Your task to perform on an android device: toggle notifications settings in the gmail app Image 0: 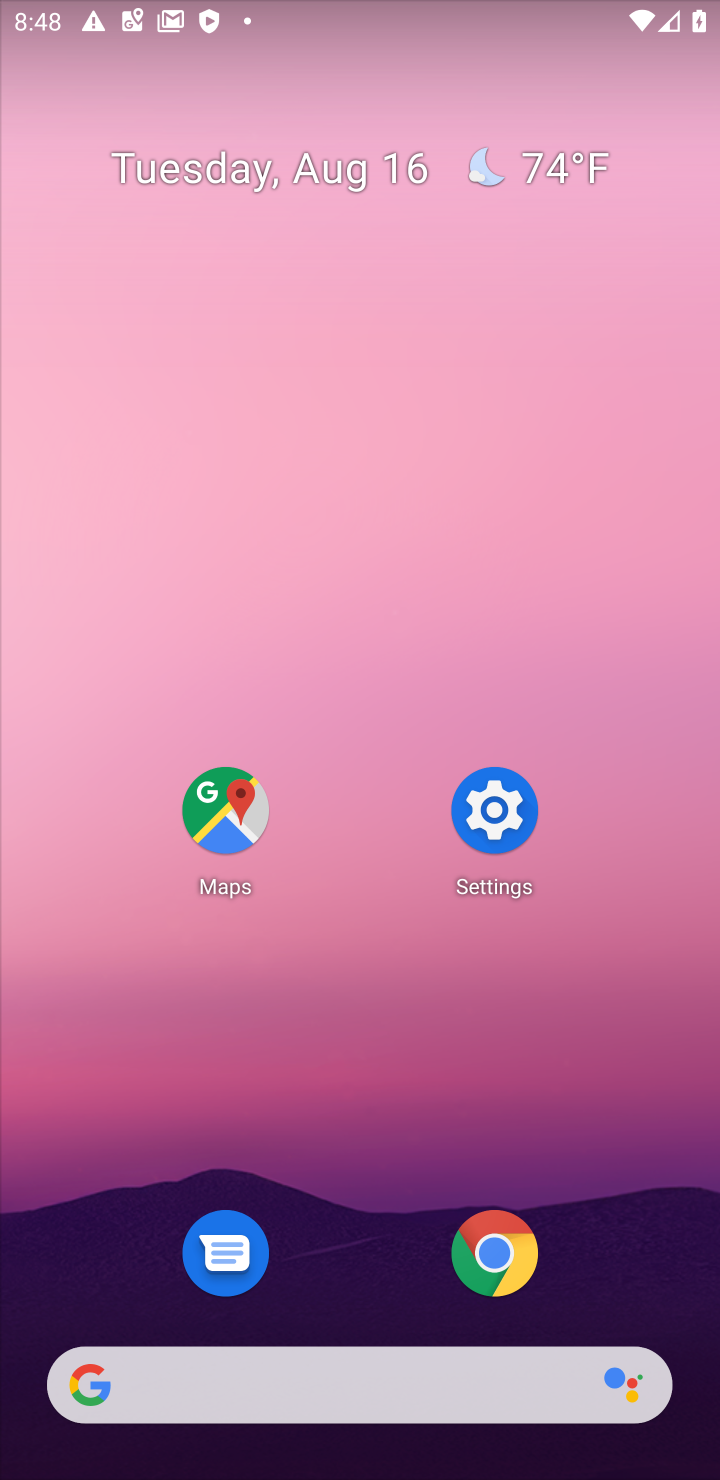
Step 0: press home button
Your task to perform on an android device: toggle notifications settings in the gmail app Image 1: 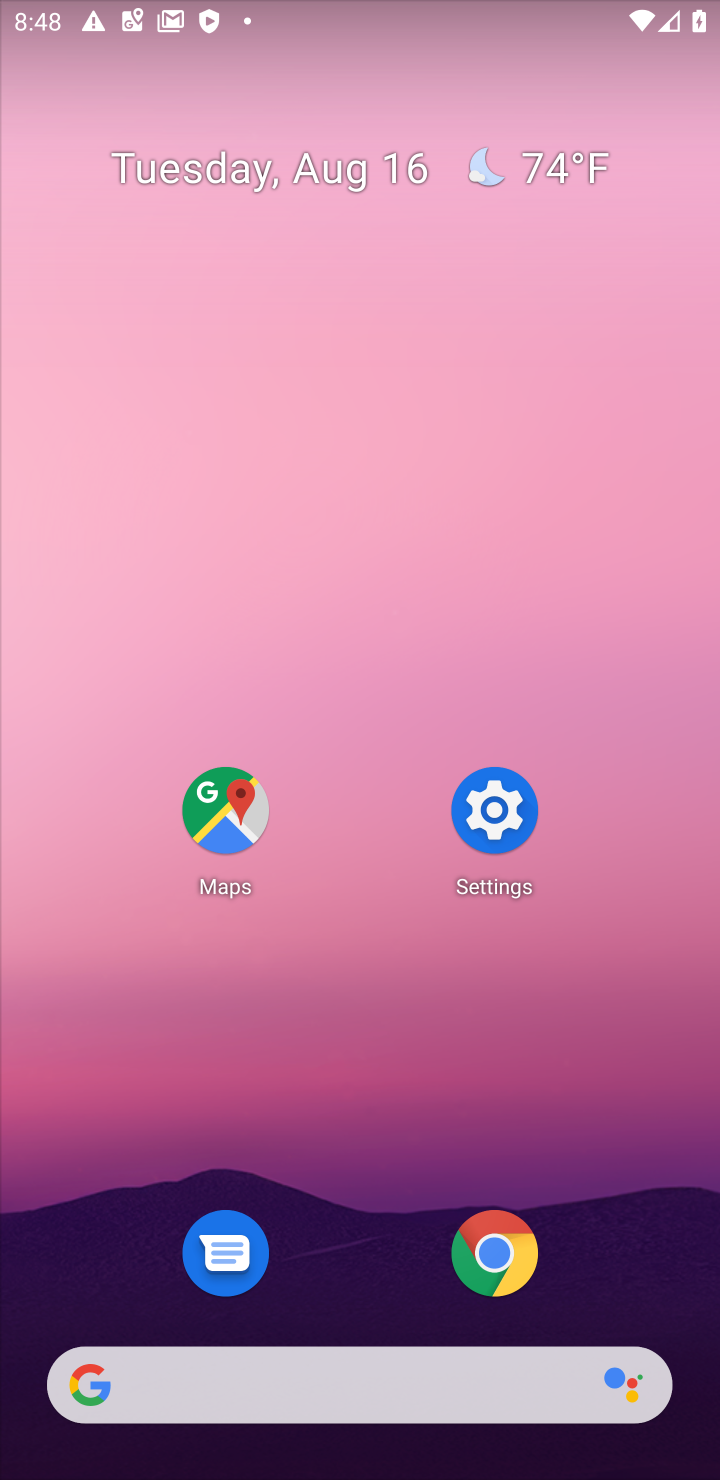
Step 1: drag from (340, 1378) to (464, 451)
Your task to perform on an android device: toggle notifications settings in the gmail app Image 2: 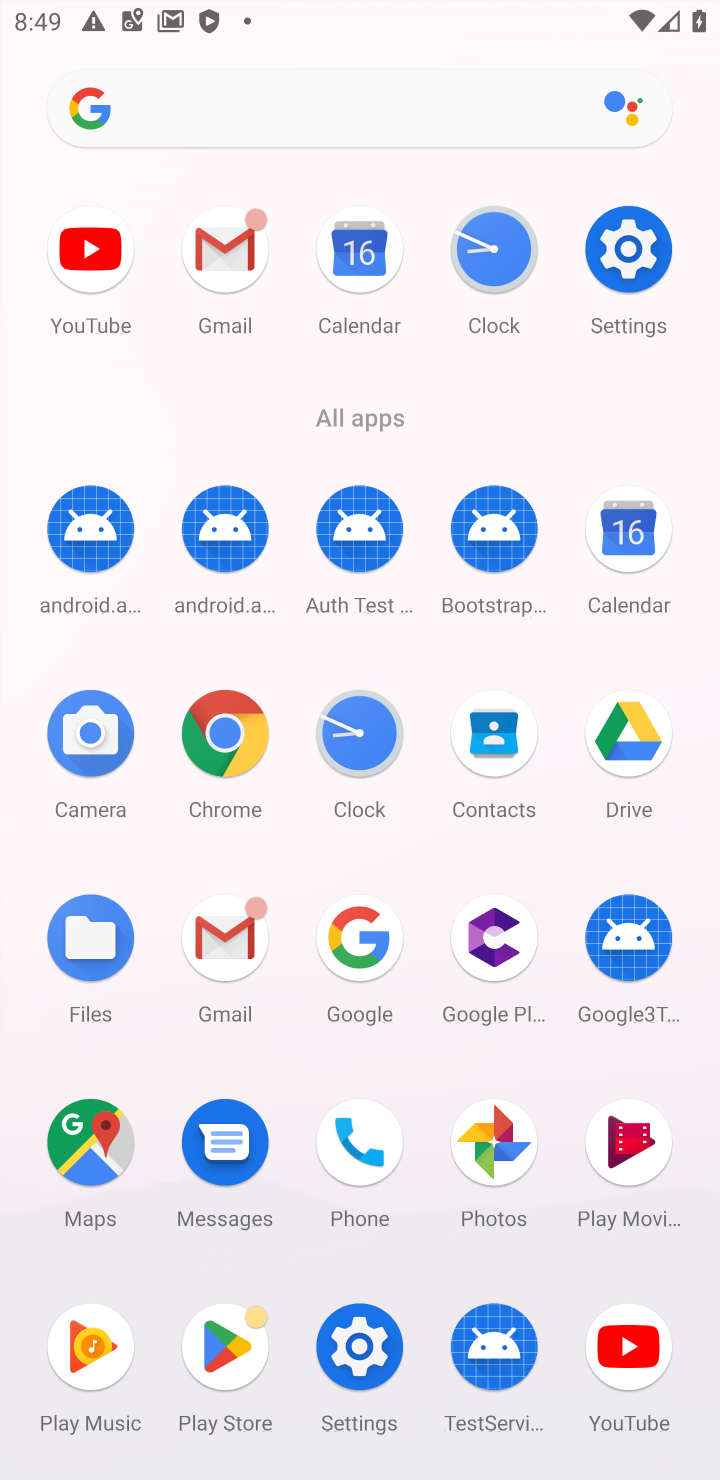
Step 2: click (216, 948)
Your task to perform on an android device: toggle notifications settings in the gmail app Image 3: 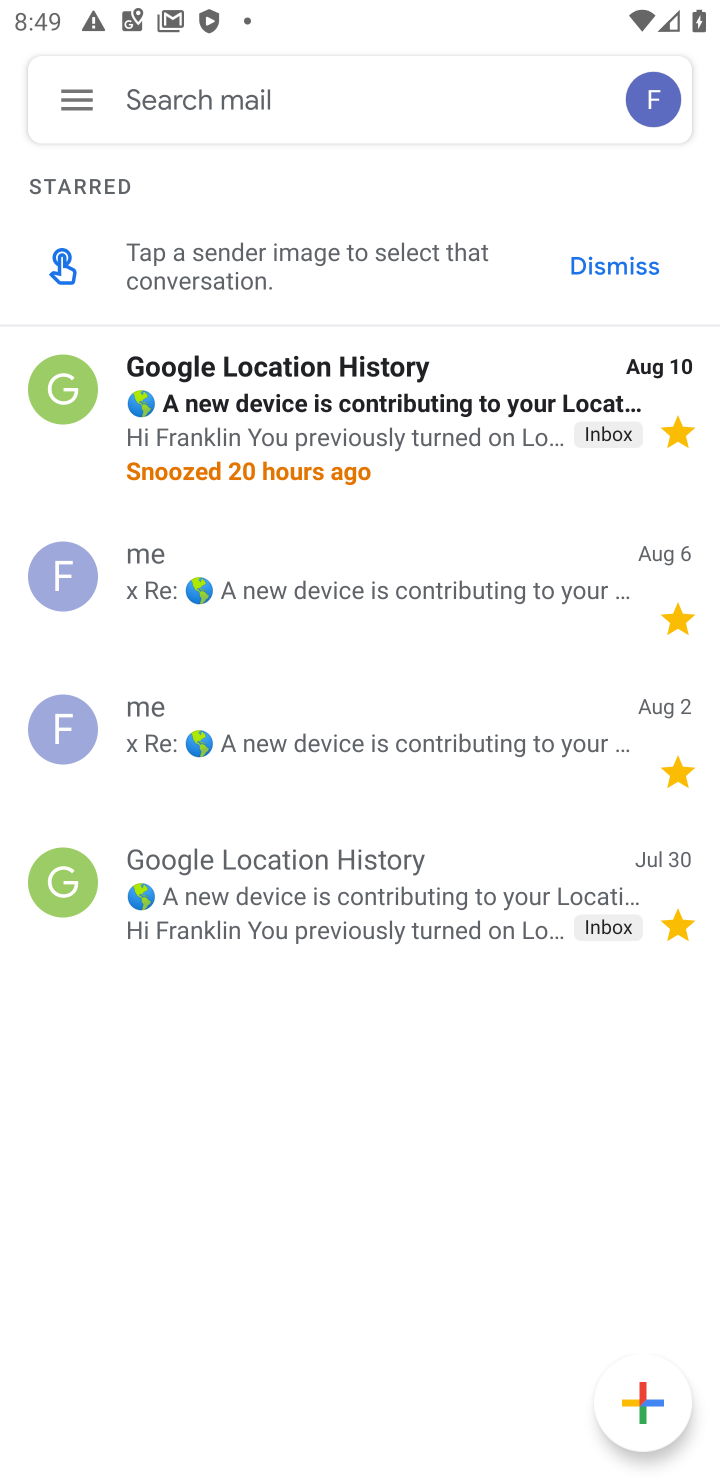
Step 3: click (82, 94)
Your task to perform on an android device: toggle notifications settings in the gmail app Image 4: 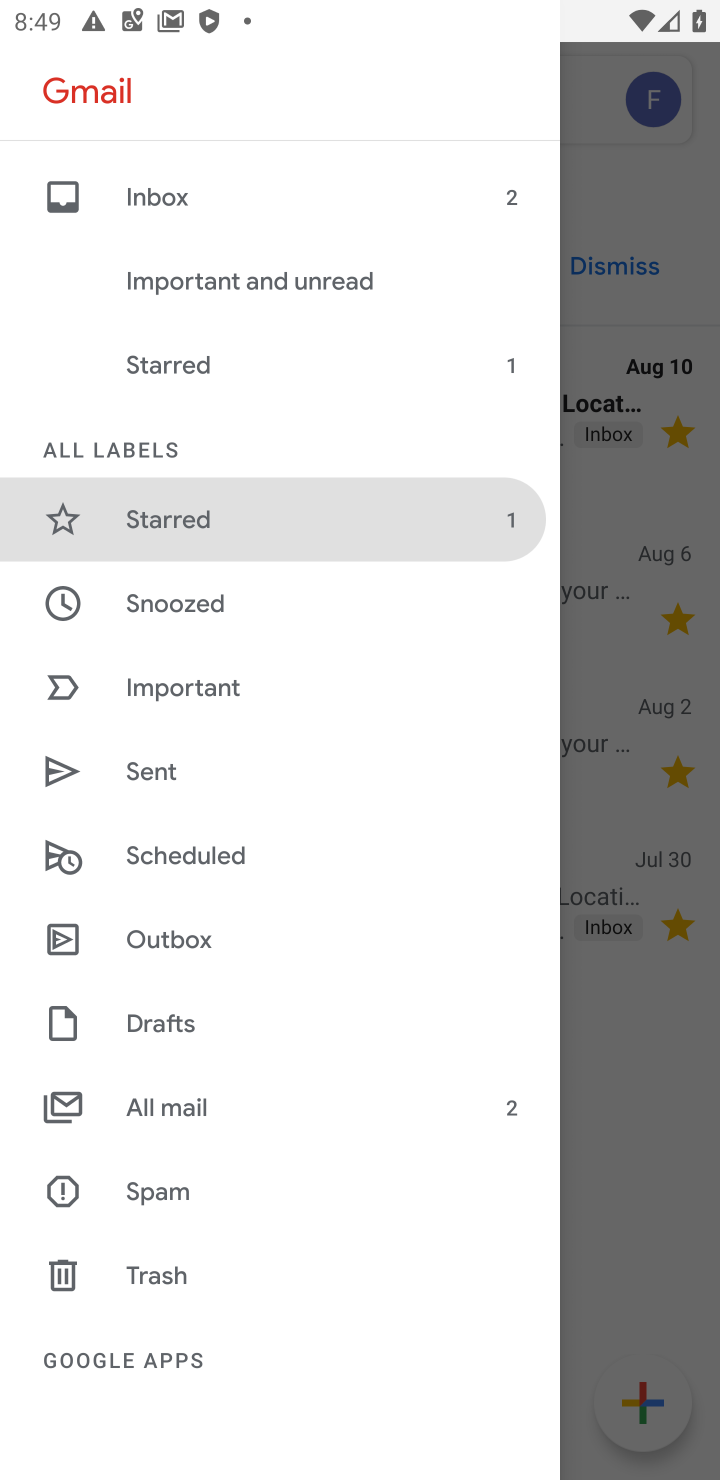
Step 4: drag from (324, 1309) to (434, 229)
Your task to perform on an android device: toggle notifications settings in the gmail app Image 5: 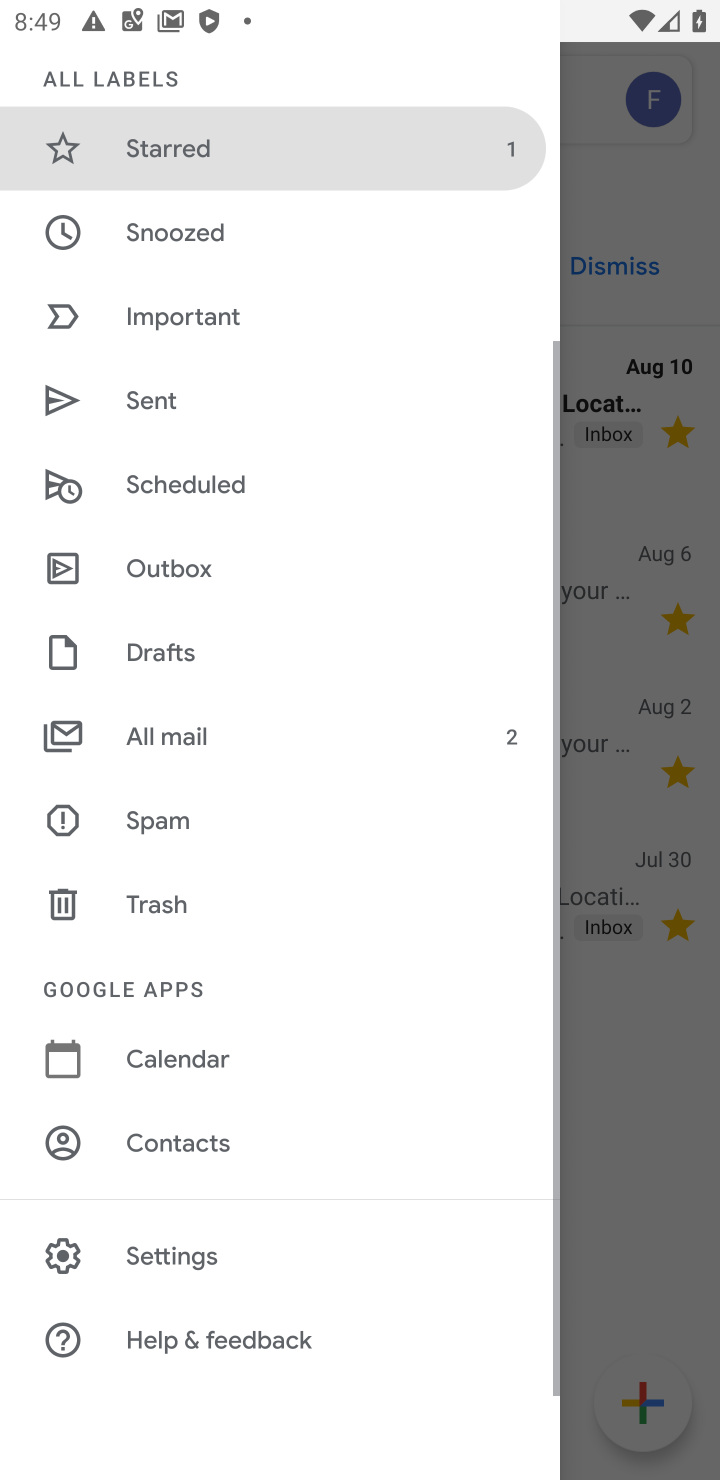
Step 5: click (174, 1251)
Your task to perform on an android device: toggle notifications settings in the gmail app Image 6: 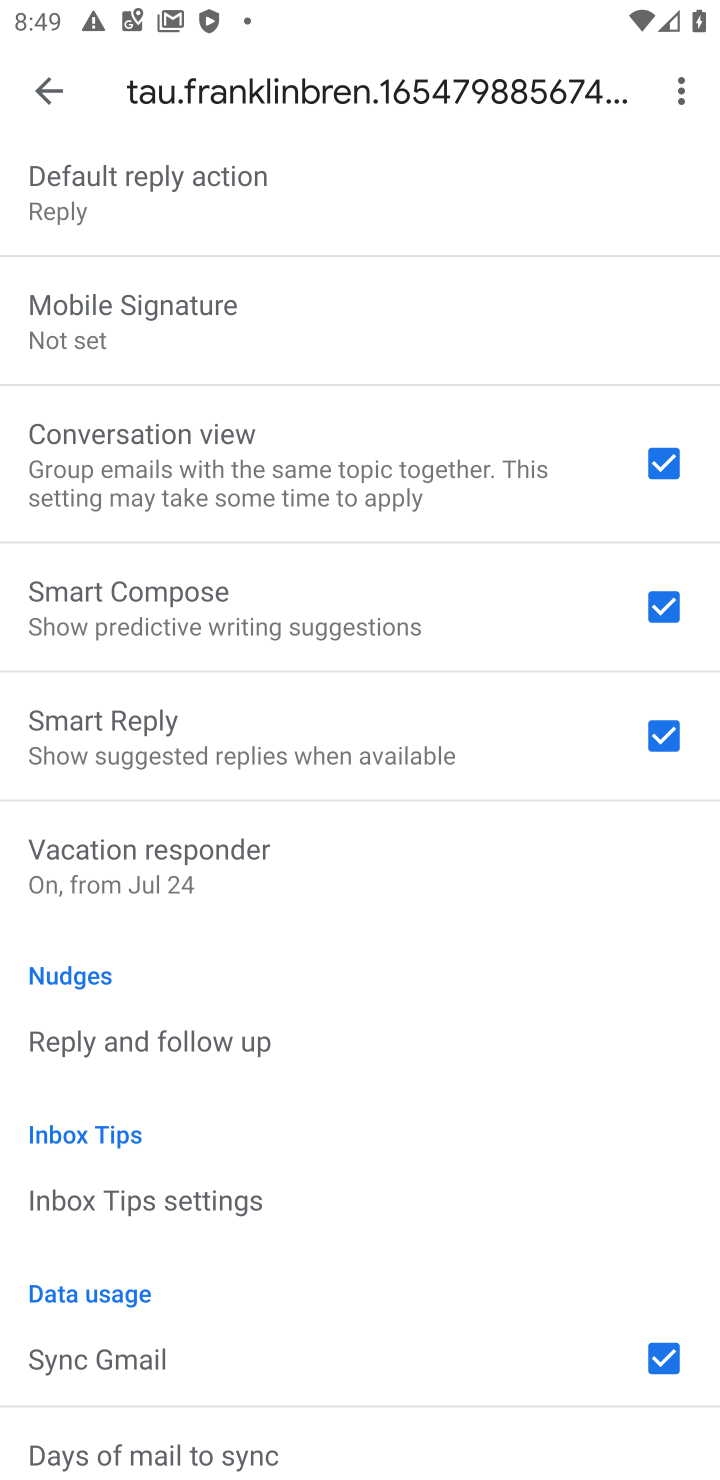
Step 6: drag from (492, 225) to (487, 1270)
Your task to perform on an android device: toggle notifications settings in the gmail app Image 7: 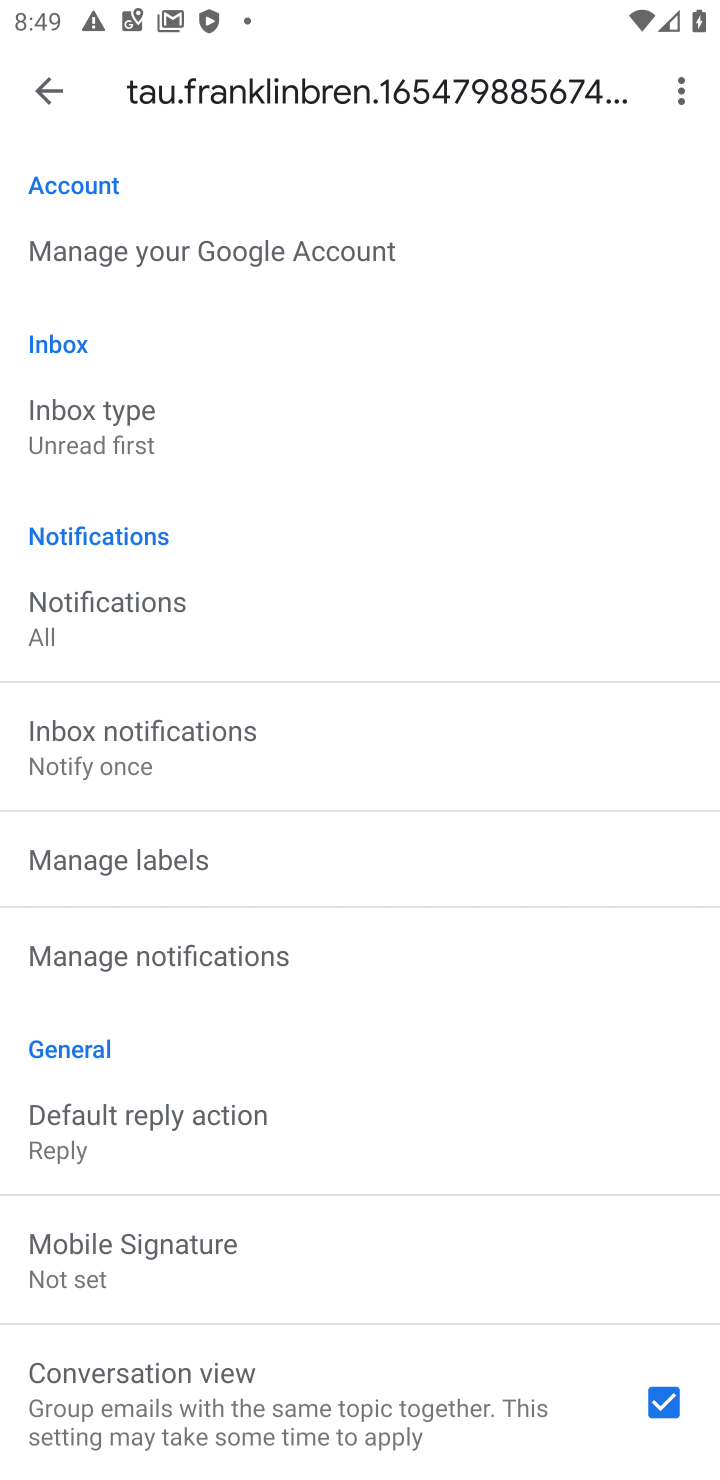
Step 7: click (117, 625)
Your task to perform on an android device: toggle notifications settings in the gmail app Image 8: 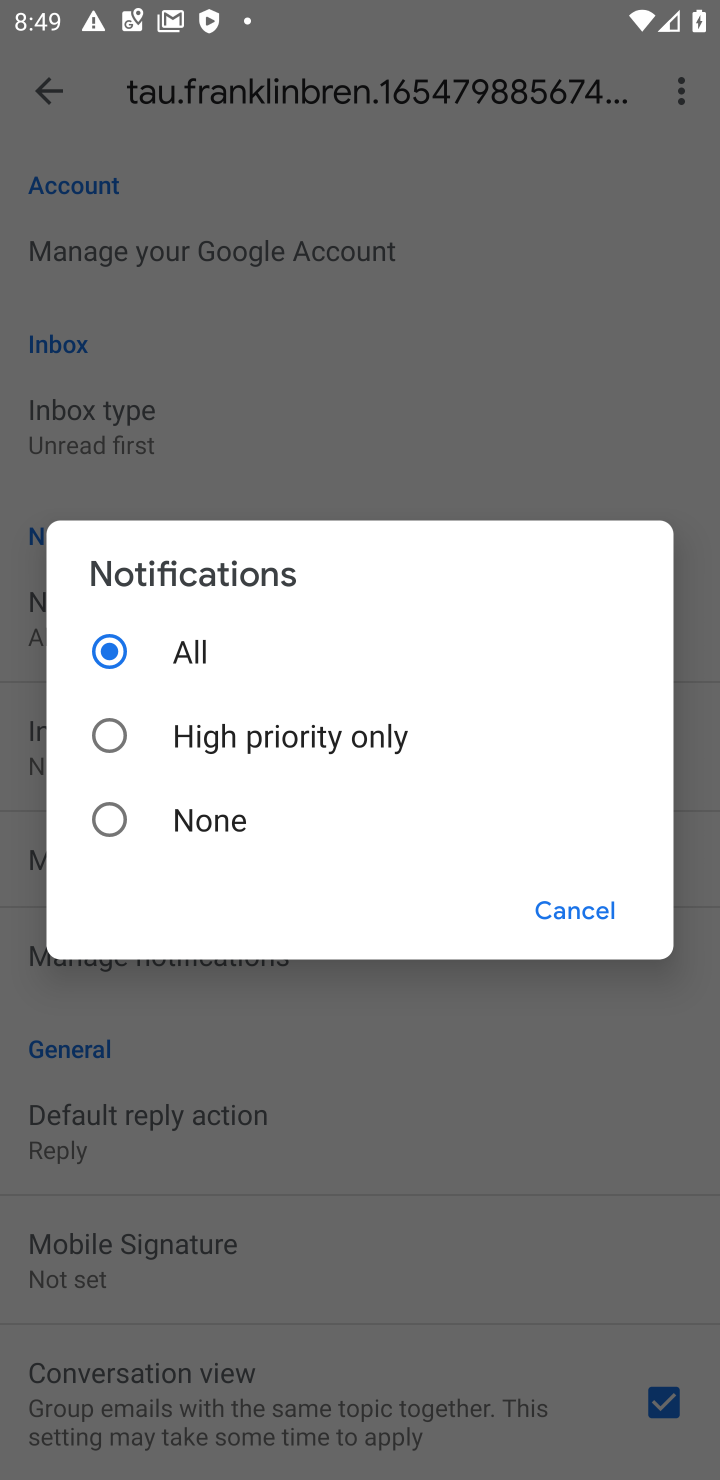
Step 8: click (105, 821)
Your task to perform on an android device: toggle notifications settings in the gmail app Image 9: 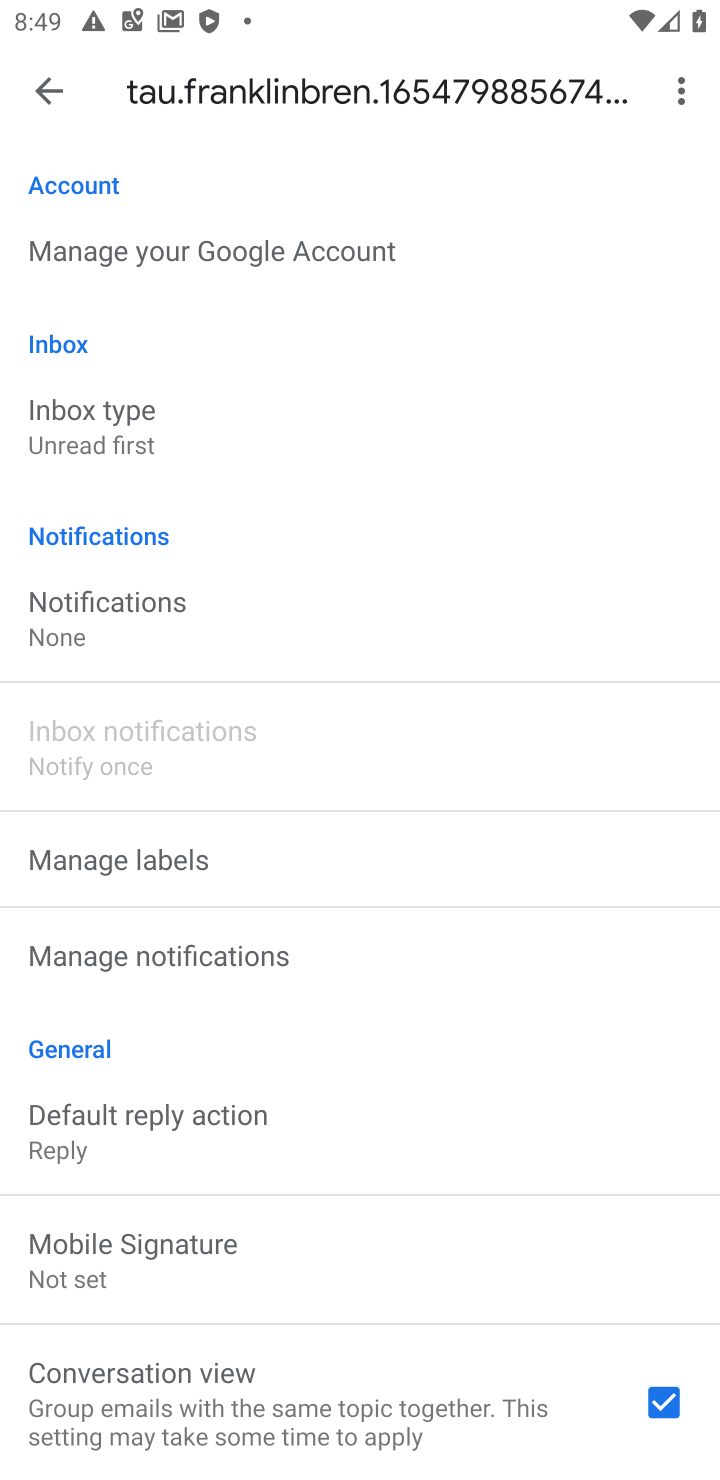
Step 9: task complete